Your task to perform on an android device: install app "Nova Launcher" Image 0: 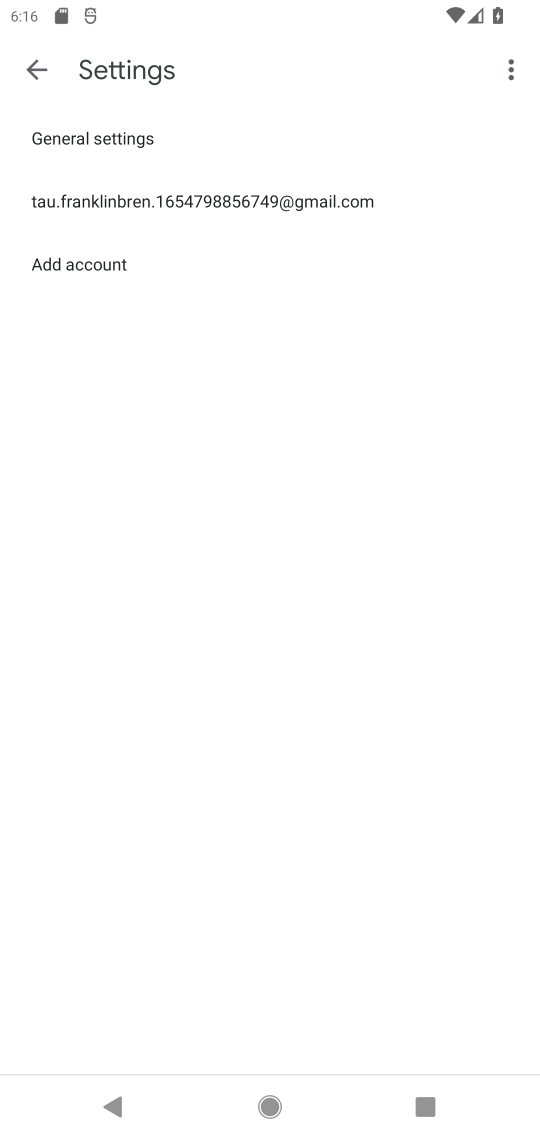
Step 0: press home button
Your task to perform on an android device: install app "Nova Launcher" Image 1: 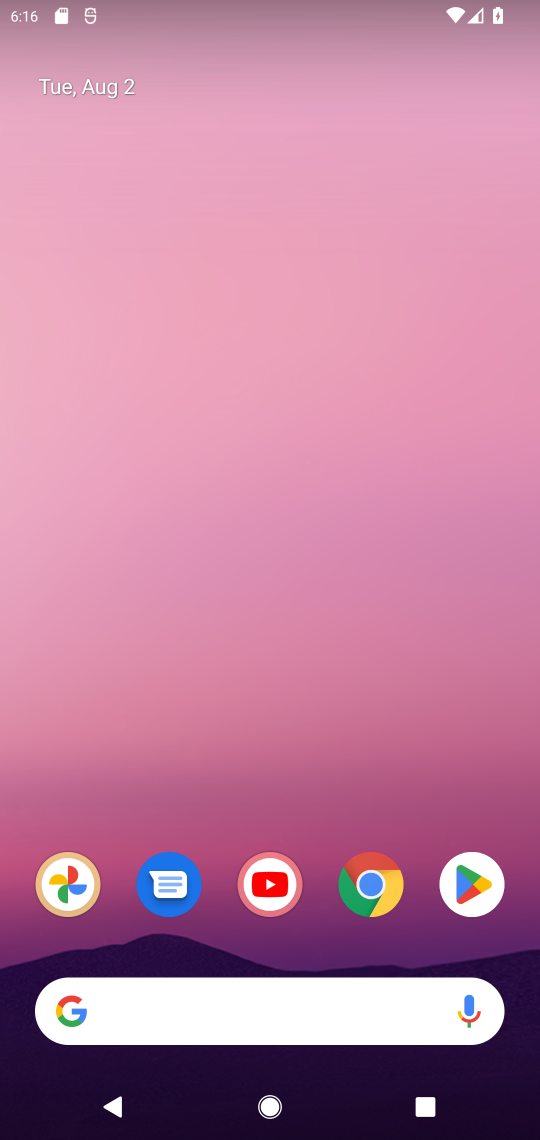
Step 1: click (465, 872)
Your task to perform on an android device: install app "Nova Launcher" Image 2: 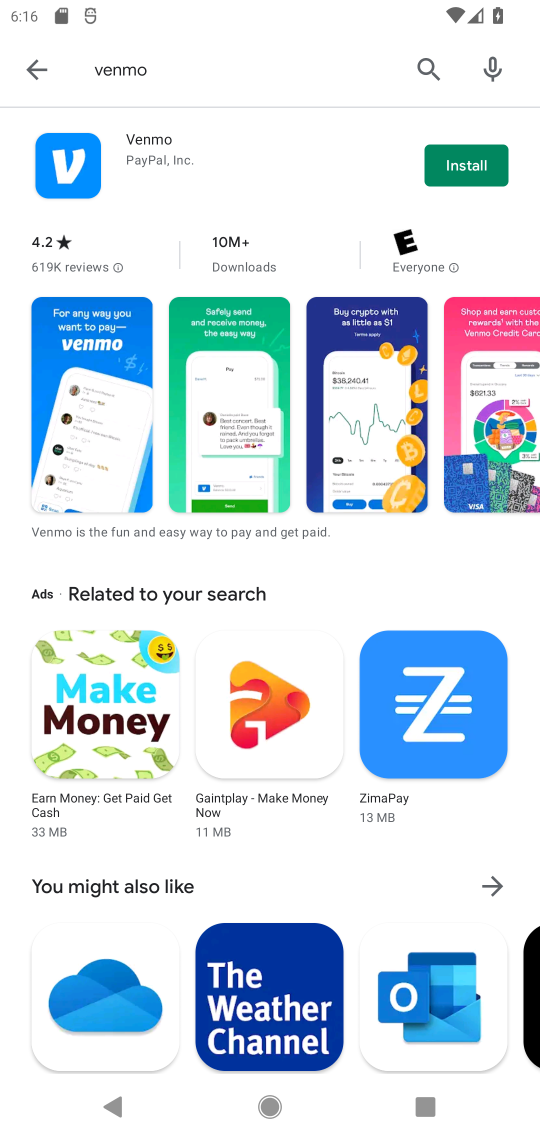
Step 2: click (433, 47)
Your task to perform on an android device: install app "Nova Launcher" Image 3: 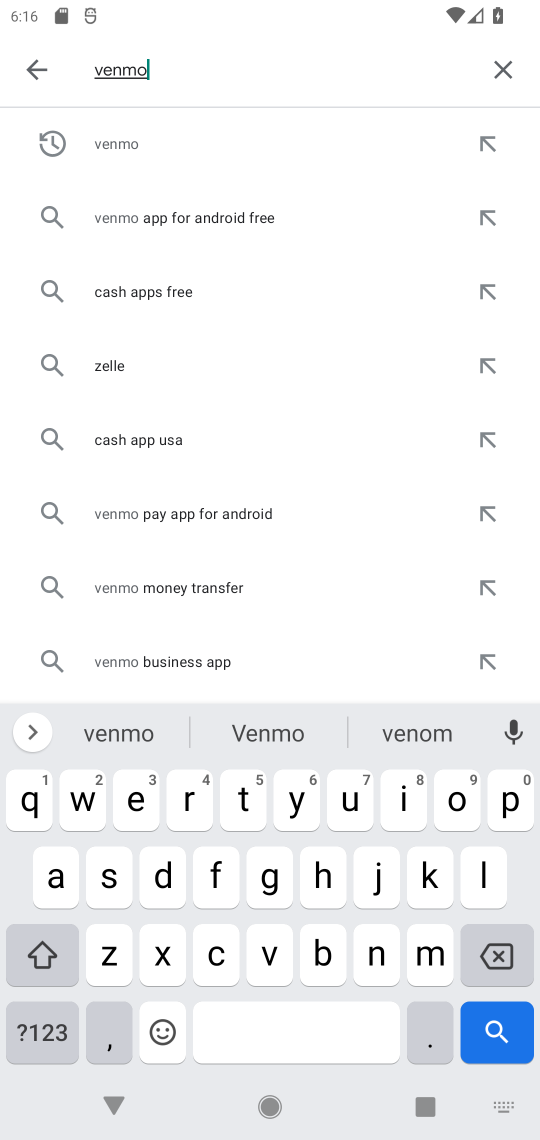
Step 3: click (500, 69)
Your task to perform on an android device: install app "Nova Launcher" Image 4: 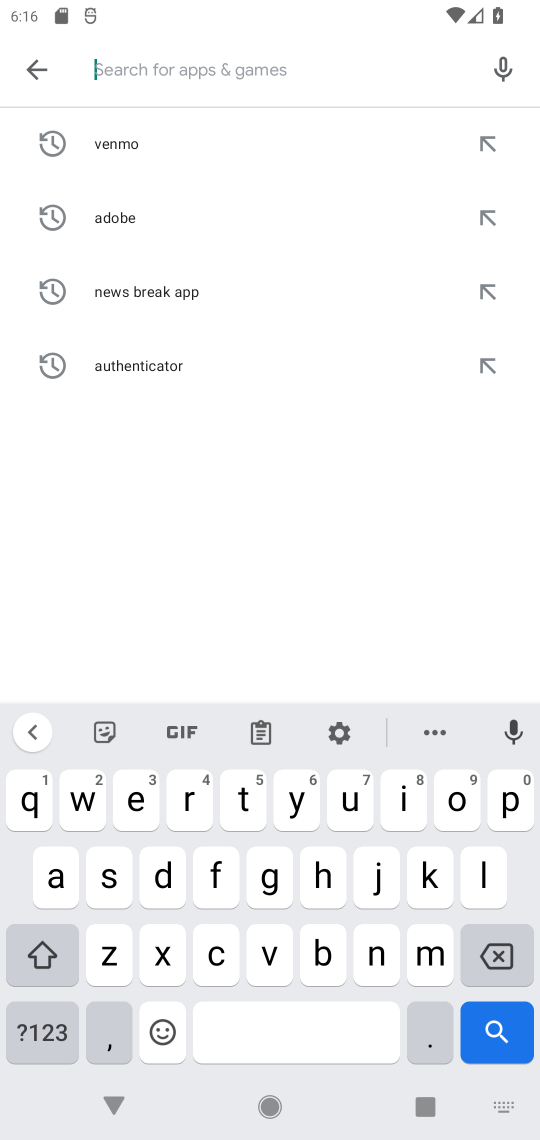
Step 4: click (378, 957)
Your task to perform on an android device: install app "Nova Launcher" Image 5: 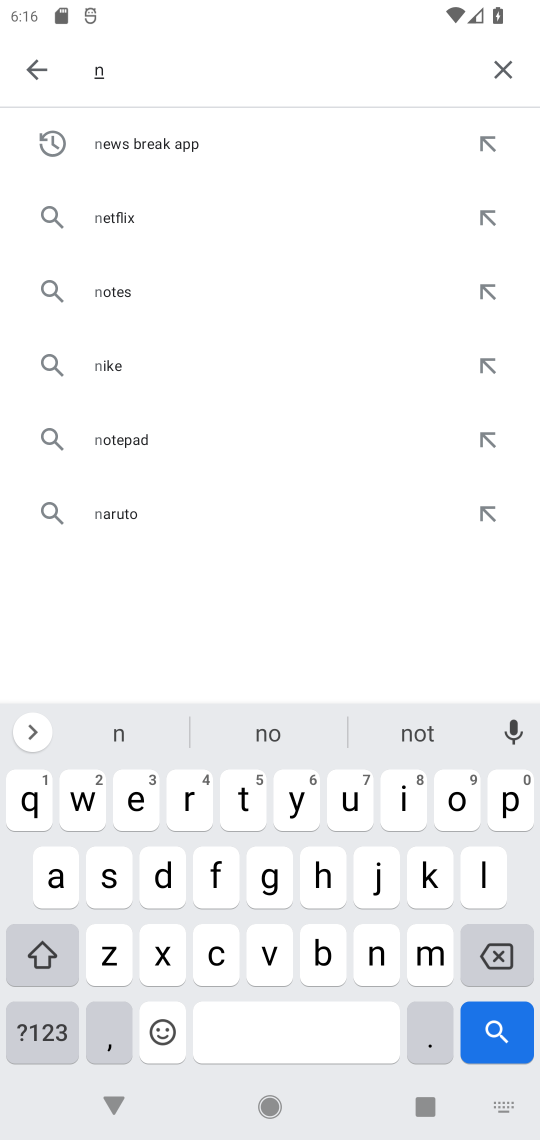
Step 5: click (459, 796)
Your task to perform on an android device: install app "Nova Launcher" Image 6: 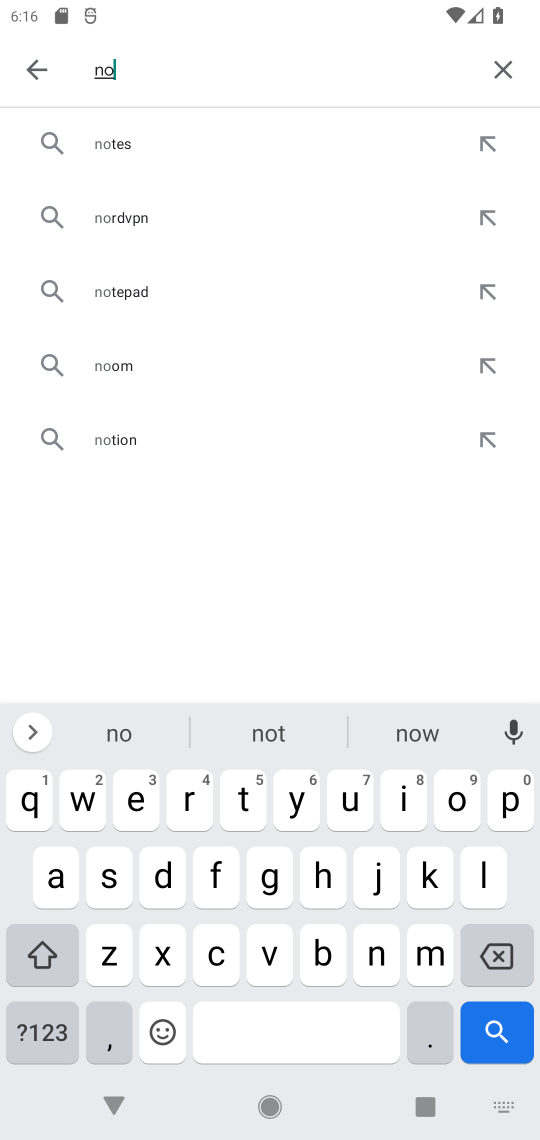
Step 6: click (268, 954)
Your task to perform on an android device: install app "Nova Launcher" Image 7: 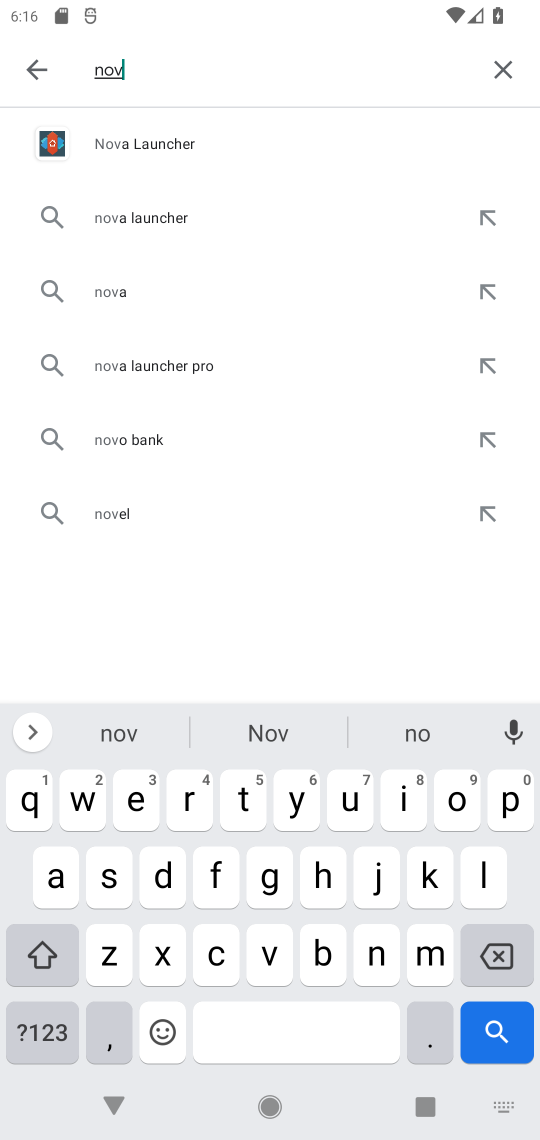
Step 7: click (166, 132)
Your task to perform on an android device: install app "Nova Launcher" Image 8: 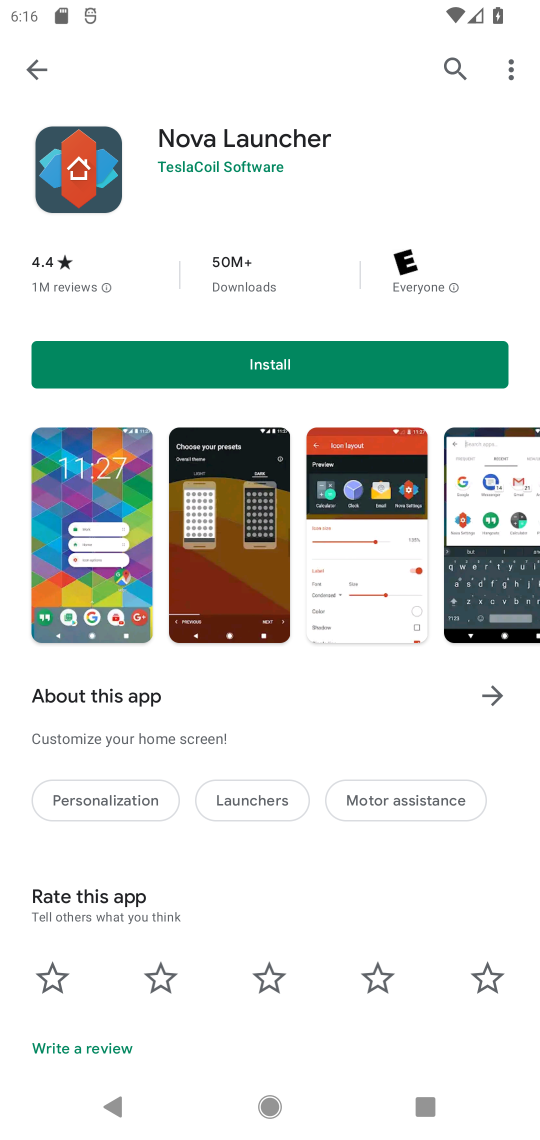
Step 8: click (221, 349)
Your task to perform on an android device: install app "Nova Launcher" Image 9: 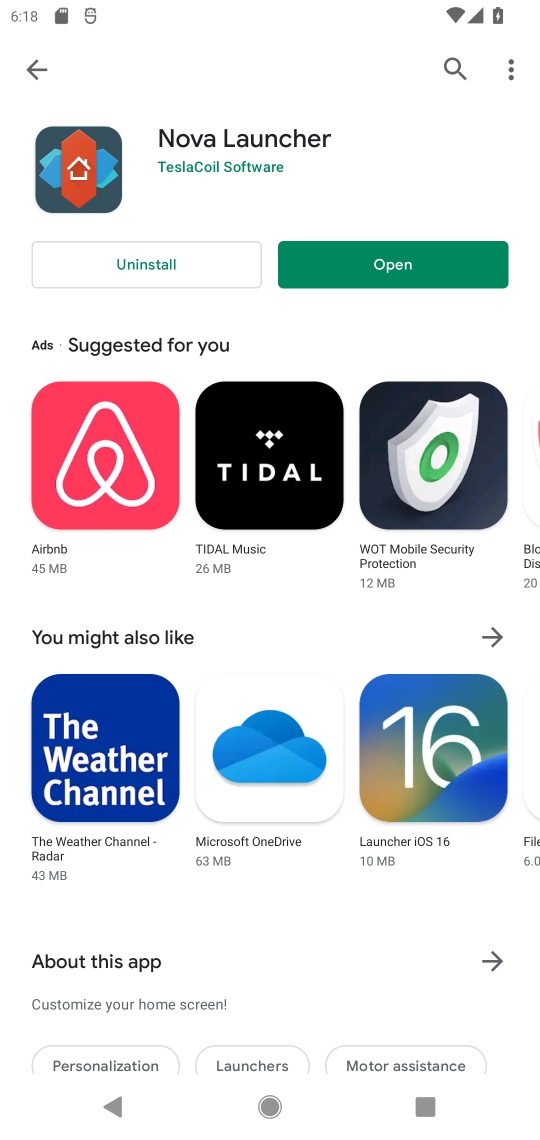
Step 9: task complete